Your task to perform on an android device: turn notification dots on Image 0: 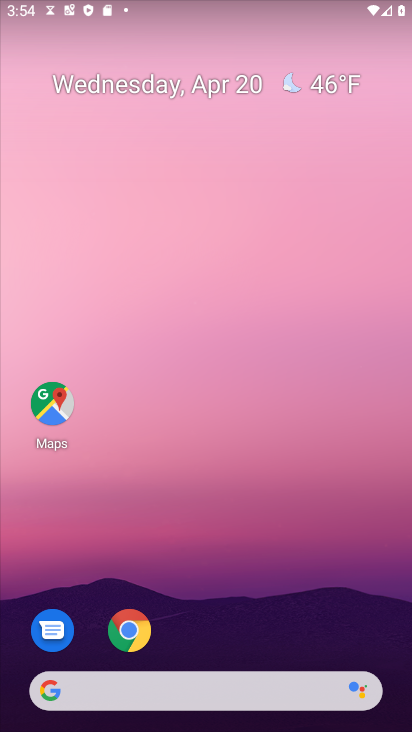
Step 0: drag from (230, 674) to (230, 240)
Your task to perform on an android device: turn notification dots on Image 1: 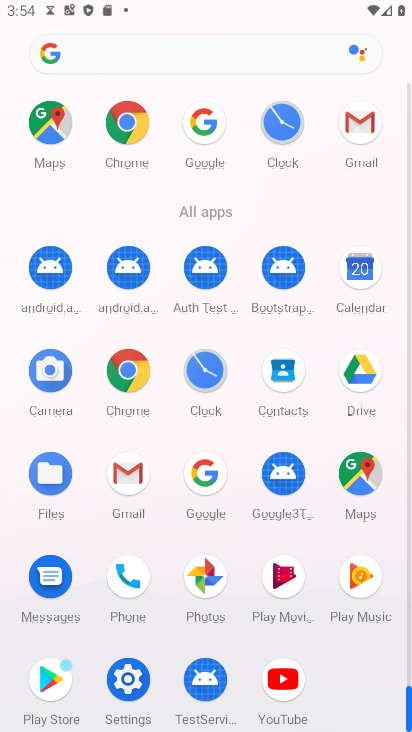
Step 1: click (129, 682)
Your task to perform on an android device: turn notification dots on Image 2: 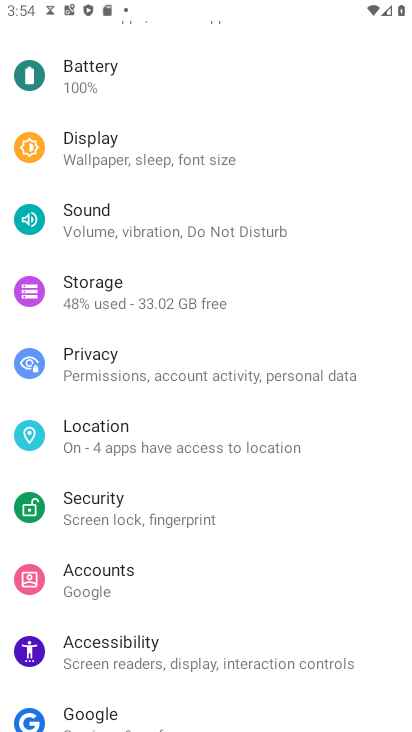
Step 2: drag from (253, 179) to (254, 533)
Your task to perform on an android device: turn notification dots on Image 3: 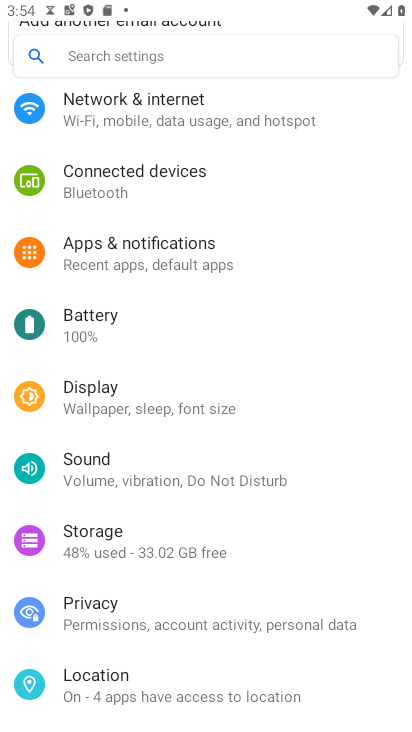
Step 3: click (184, 250)
Your task to perform on an android device: turn notification dots on Image 4: 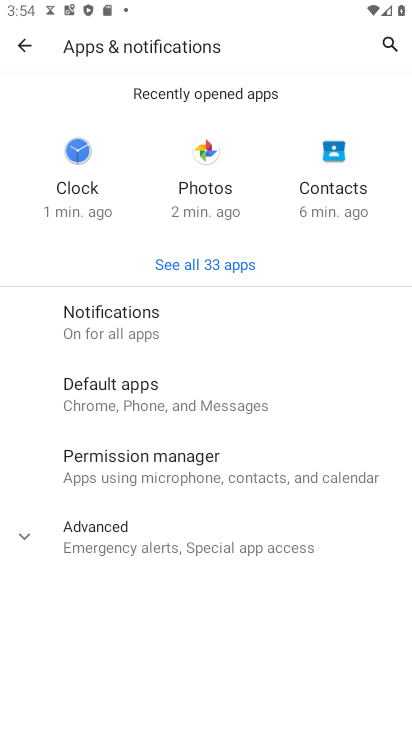
Step 4: click (152, 547)
Your task to perform on an android device: turn notification dots on Image 5: 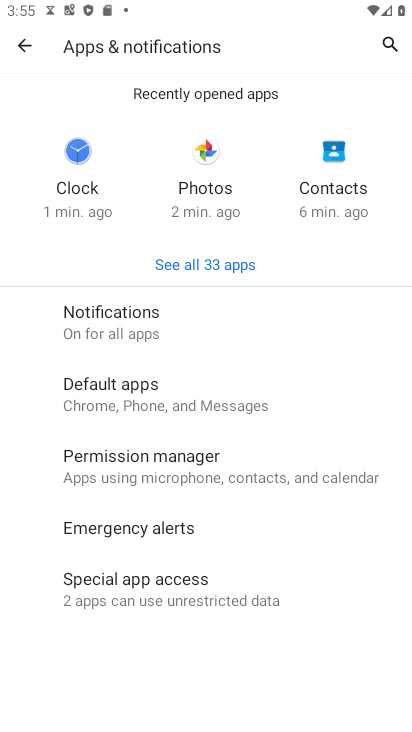
Step 5: click (127, 326)
Your task to perform on an android device: turn notification dots on Image 6: 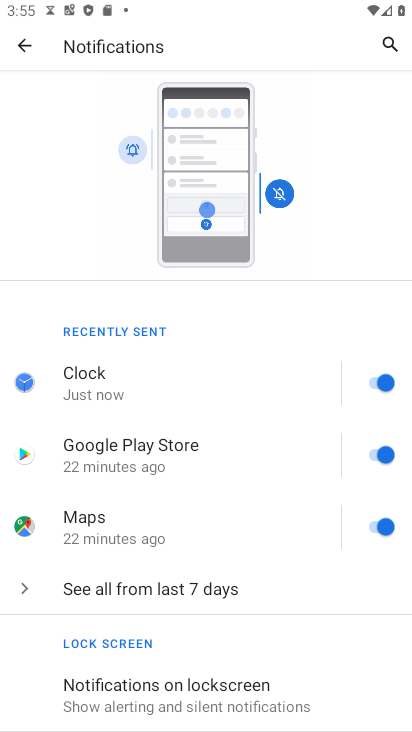
Step 6: drag from (336, 699) to (349, 225)
Your task to perform on an android device: turn notification dots on Image 7: 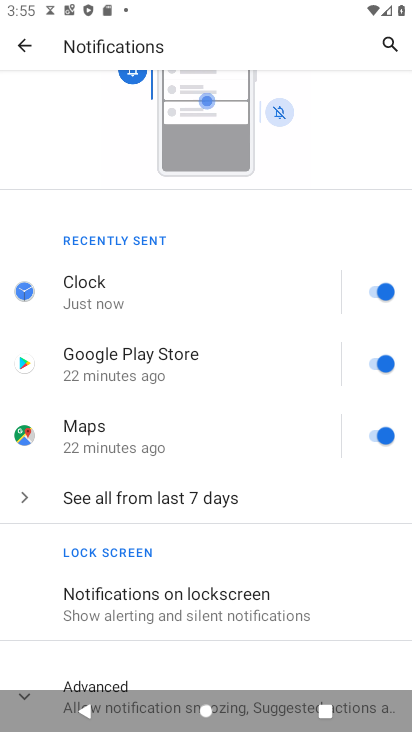
Step 7: drag from (309, 579) to (309, 179)
Your task to perform on an android device: turn notification dots on Image 8: 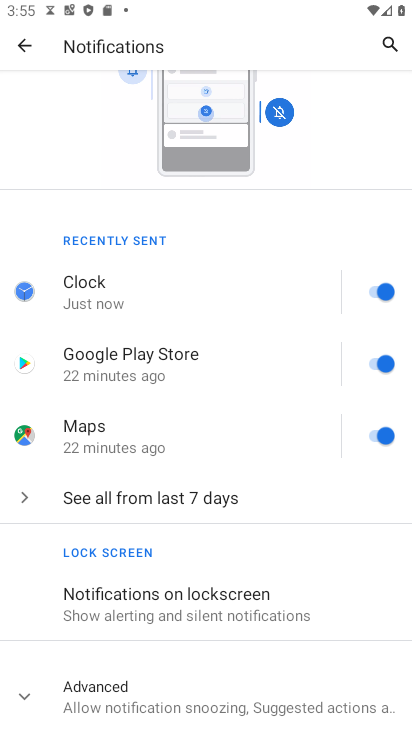
Step 8: click (148, 701)
Your task to perform on an android device: turn notification dots on Image 9: 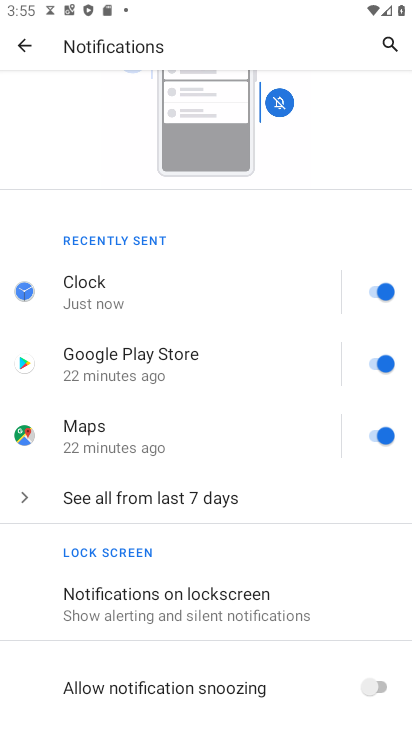
Step 9: task complete